Your task to perform on an android device: move an email to a new category in the gmail app Image 0: 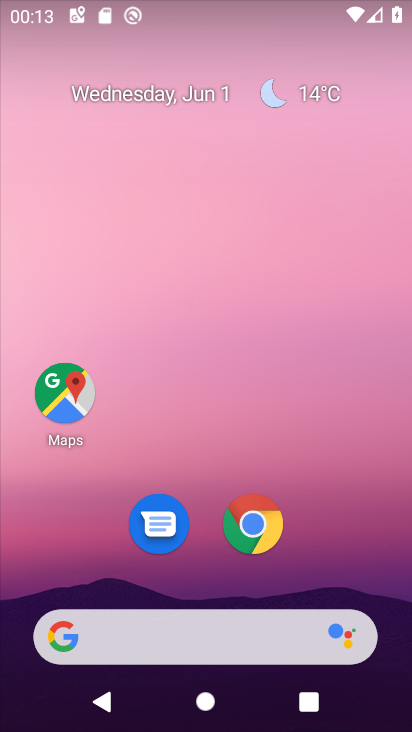
Step 0: drag from (233, 424) to (225, 49)
Your task to perform on an android device: move an email to a new category in the gmail app Image 1: 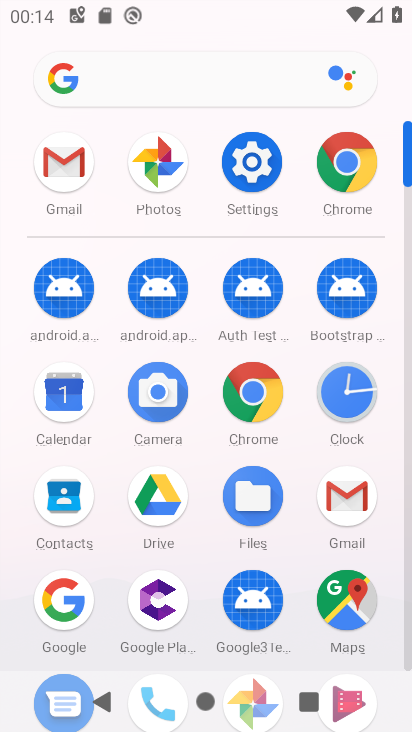
Step 1: click (55, 160)
Your task to perform on an android device: move an email to a new category in the gmail app Image 2: 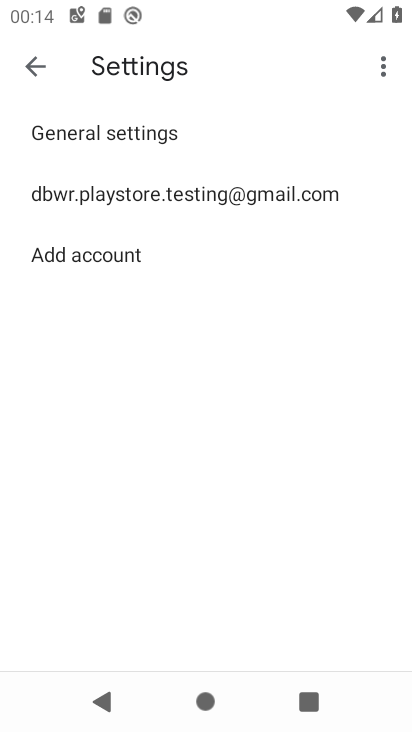
Step 2: click (35, 63)
Your task to perform on an android device: move an email to a new category in the gmail app Image 3: 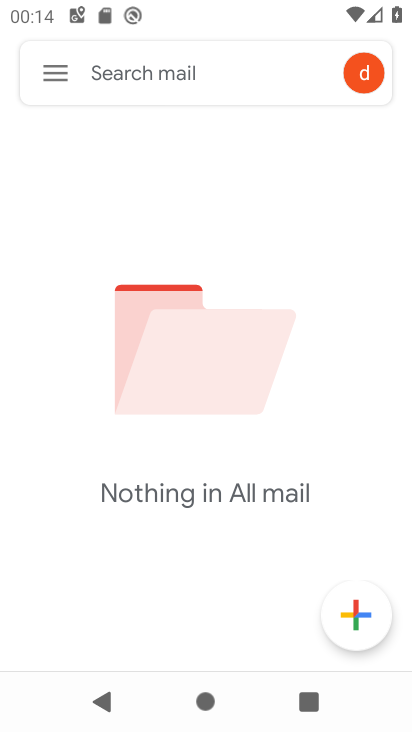
Step 3: task complete